Your task to perform on an android device: Open maps Image 0: 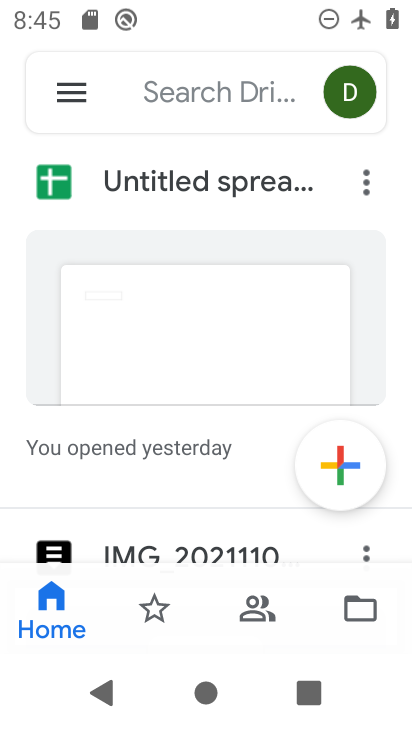
Step 0: press home button
Your task to perform on an android device: Open maps Image 1: 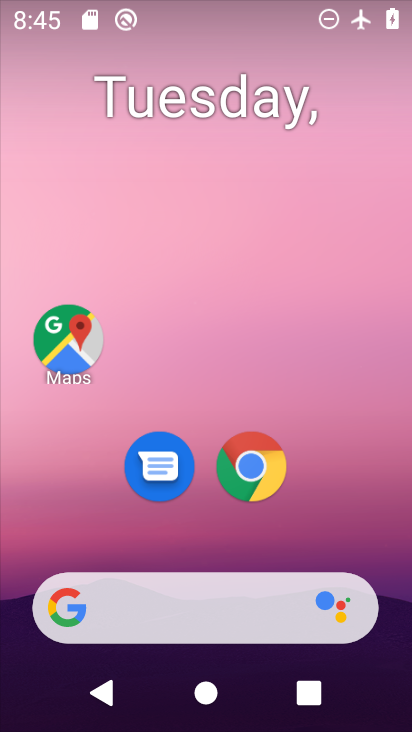
Step 1: click (53, 348)
Your task to perform on an android device: Open maps Image 2: 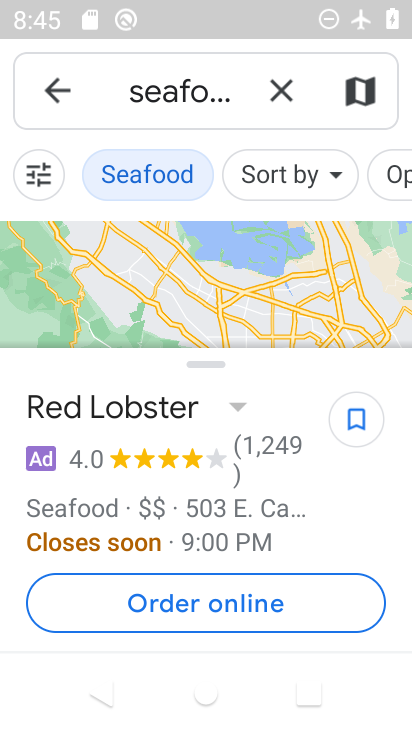
Step 2: click (51, 90)
Your task to perform on an android device: Open maps Image 3: 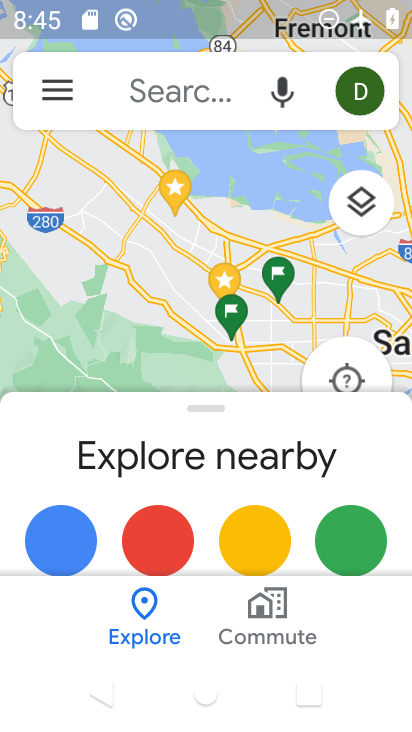
Step 3: task complete